Your task to perform on an android device: What's on my calendar tomorrow? Image 0: 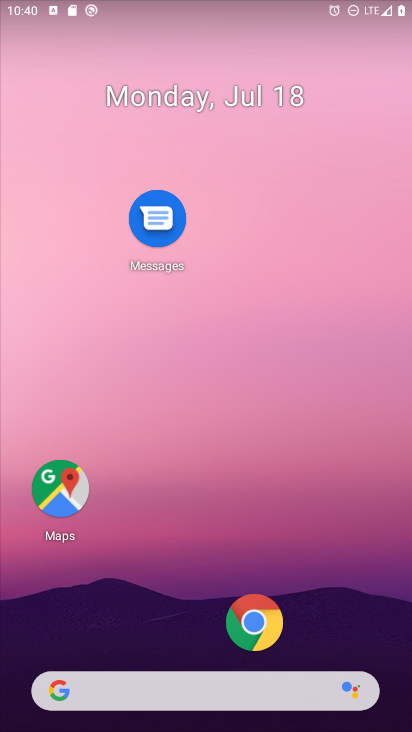
Step 0: drag from (237, 699) to (301, 153)
Your task to perform on an android device: What's on my calendar tomorrow? Image 1: 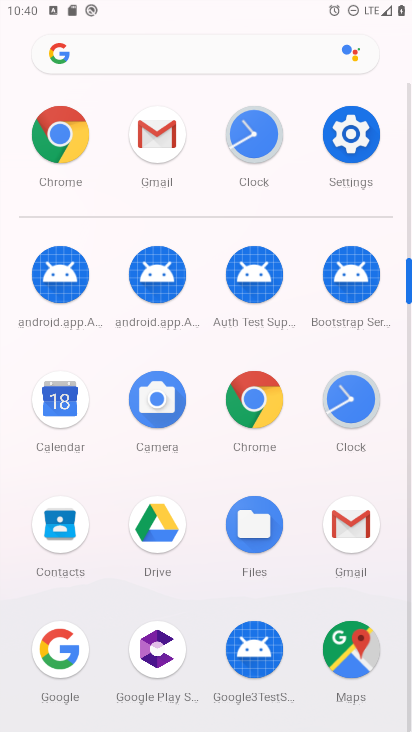
Step 1: click (69, 400)
Your task to perform on an android device: What's on my calendar tomorrow? Image 2: 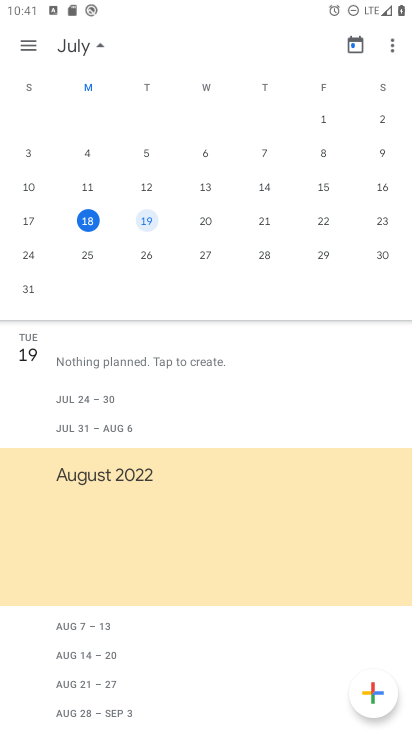
Step 2: click (138, 220)
Your task to perform on an android device: What's on my calendar tomorrow? Image 3: 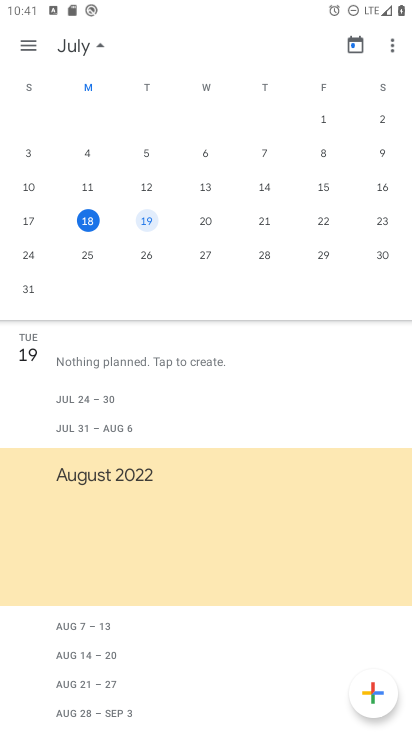
Step 3: task complete